Your task to perform on an android device: Search for pizza restaurants on Maps Image 0: 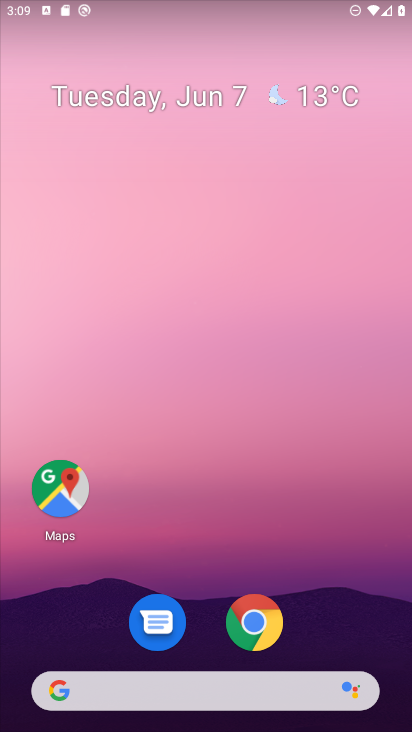
Step 0: click (51, 480)
Your task to perform on an android device: Search for pizza restaurants on Maps Image 1: 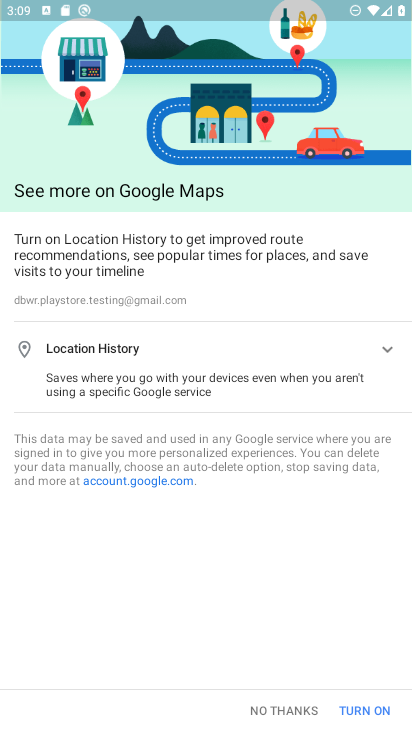
Step 1: click (372, 714)
Your task to perform on an android device: Search for pizza restaurants on Maps Image 2: 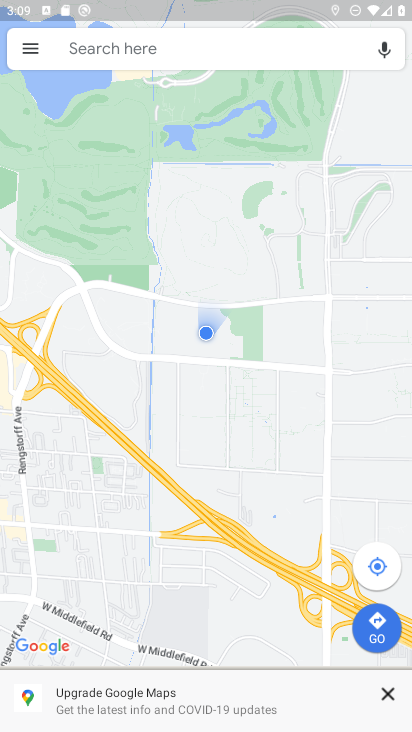
Step 2: click (211, 42)
Your task to perform on an android device: Search for pizza restaurants on Maps Image 3: 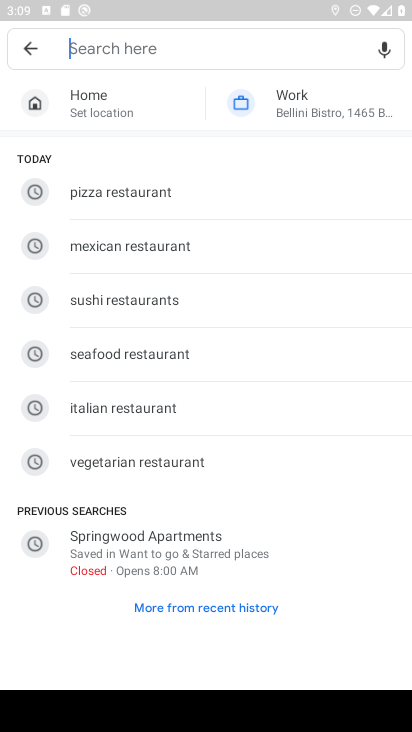
Step 3: type "pizza restaurants"
Your task to perform on an android device: Search for pizza restaurants on Maps Image 4: 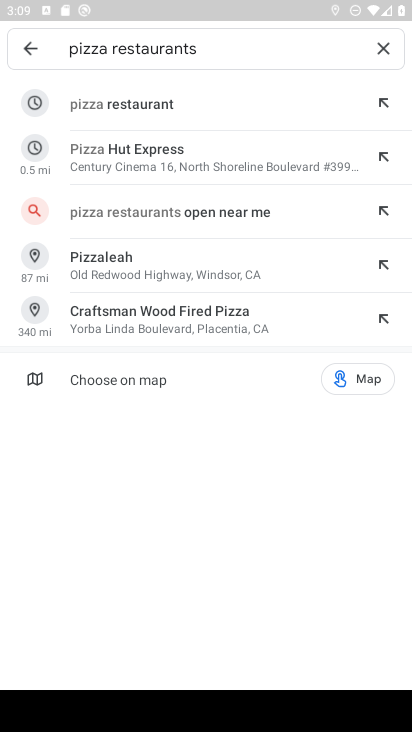
Step 4: click (106, 106)
Your task to perform on an android device: Search for pizza restaurants on Maps Image 5: 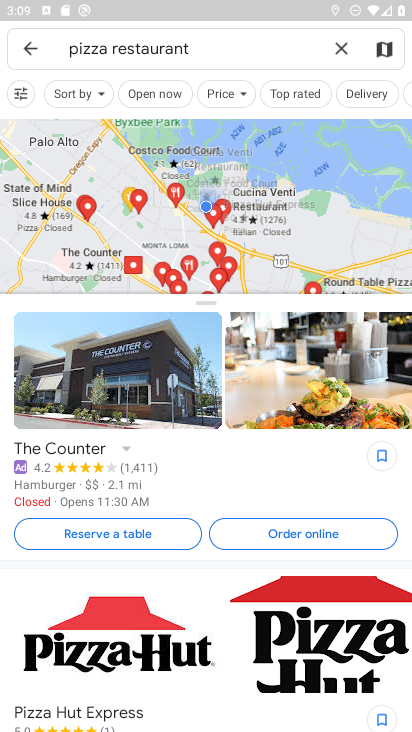
Step 5: task complete